Your task to perform on an android device: set an alarm Image 0: 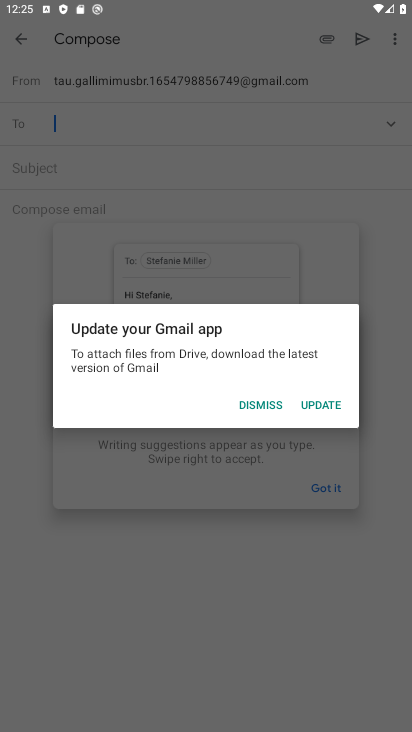
Step 0: press home button
Your task to perform on an android device: set an alarm Image 1: 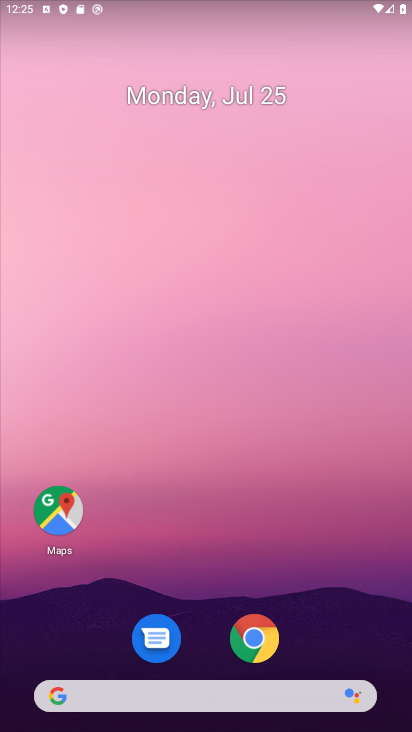
Step 1: drag from (175, 659) to (175, 73)
Your task to perform on an android device: set an alarm Image 2: 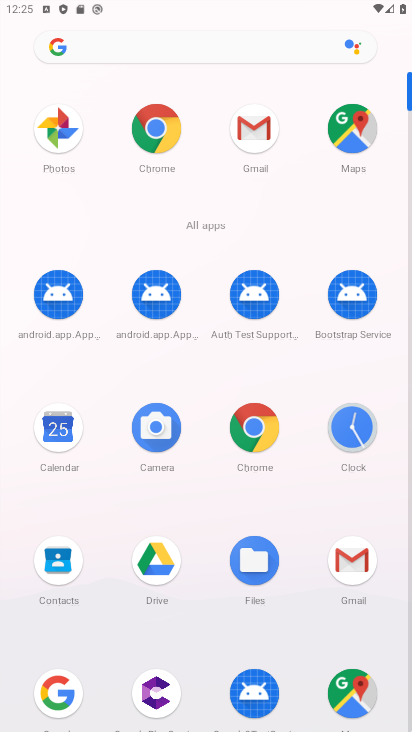
Step 2: click (379, 416)
Your task to perform on an android device: set an alarm Image 3: 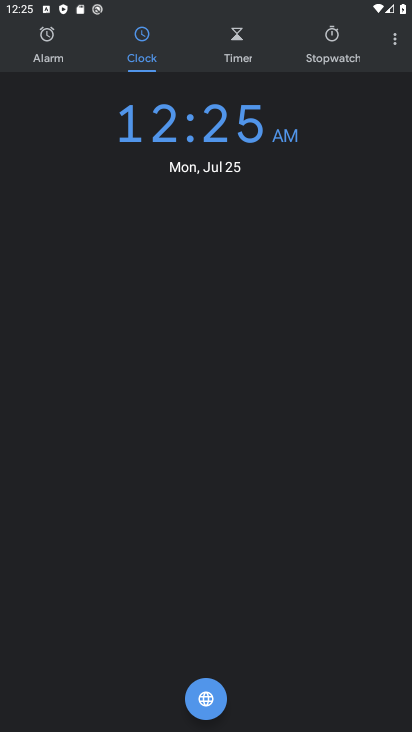
Step 3: click (19, 59)
Your task to perform on an android device: set an alarm Image 4: 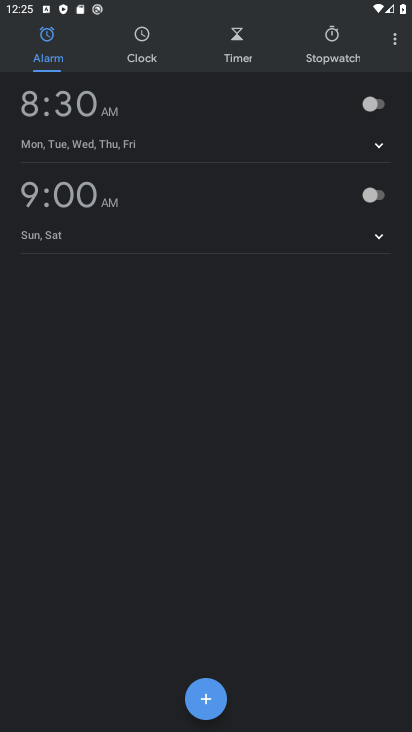
Step 4: task complete